Your task to perform on an android device: change the clock display to digital Image 0: 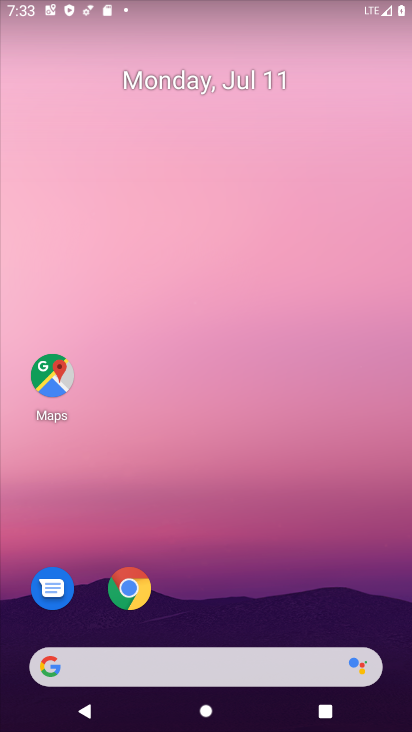
Step 0: drag from (400, 617) to (317, 118)
Your task to perform on an android device: change the clock display to digital Image 1: 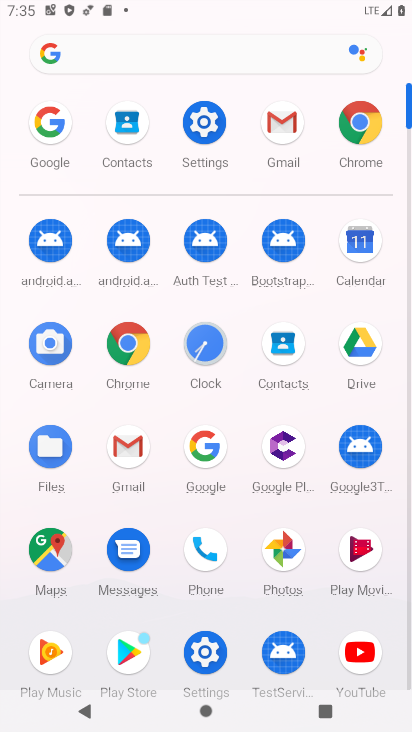
Step 1: click (208, 336)
Your task to perform on an android device: change the clock display to digital Image 2: 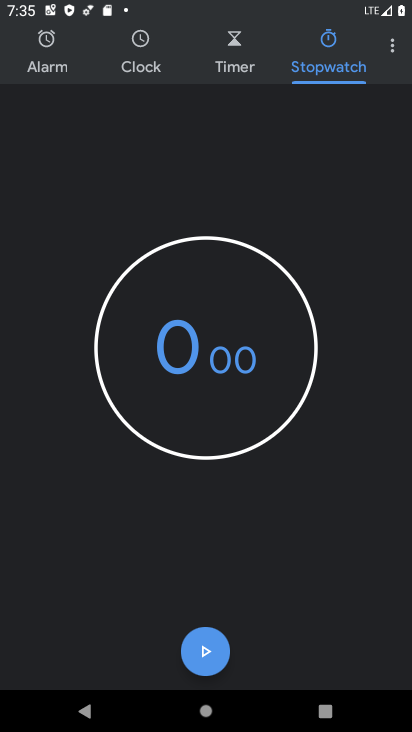
Step 2: click (388, 49)
Your task to perform on an android device: change the clock display to digital Image 3: 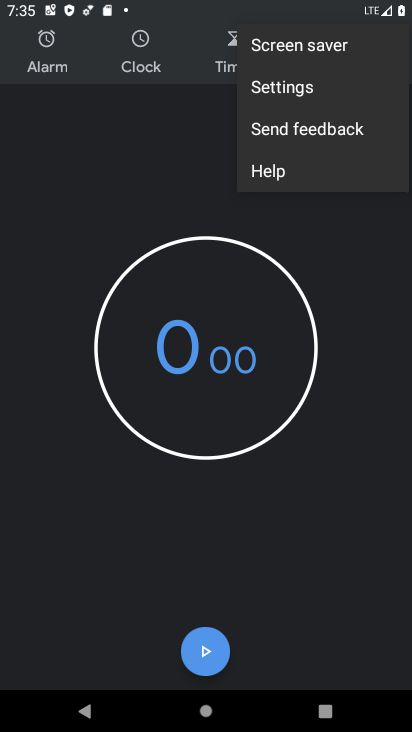
Step 3: click (304, 89)
Your task to perform on an android device: change the clock display to digital Image 4: 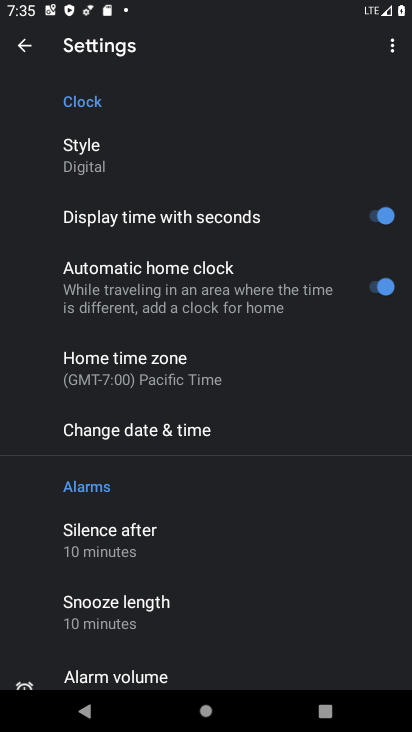
Step 4: click (96, 167)
Your task to perform on an android device: change the clock display to digital Image 5: 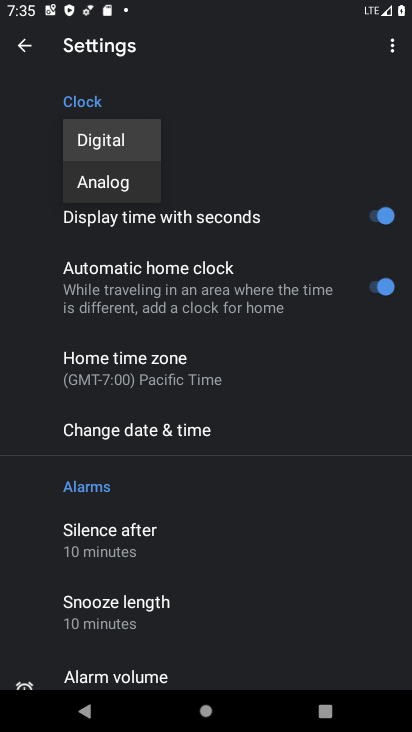
Step 5: click (113, 149)
Your task to perform on an android device: change the clock display to digital Image 6: 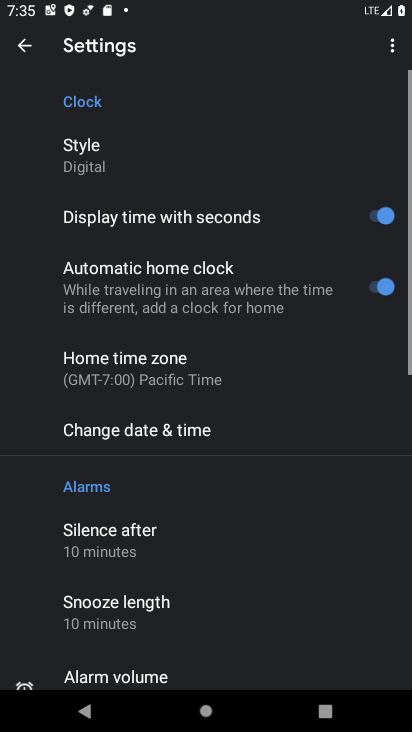
Step 6: task complete